Your task to perform on an android device: Open Maps and search for coffee Image 0: 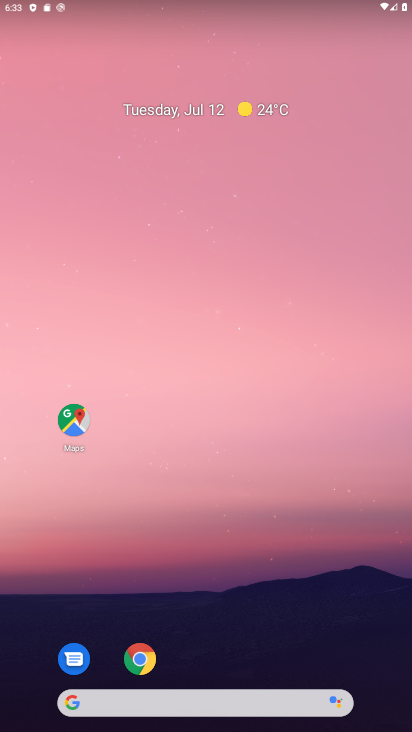
Step 0: drag from (382, 673) to (201, 4)
Your task to perform on an android device: Open Maps and search for coffee Image 1: 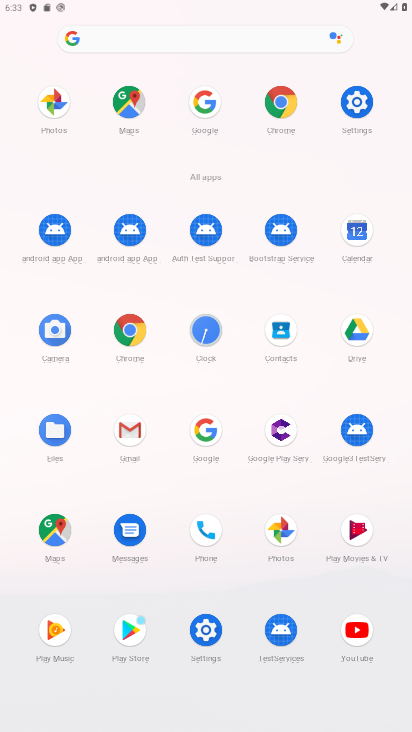
Step 1: click (53, 534)
Your task to perform on an android device: Open Maps and search for coffee Image 2: 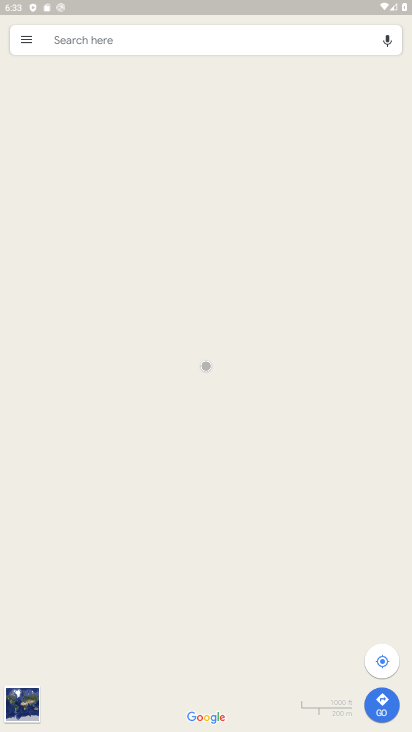
Step 2: click (81, 29)
Your task to perform on an android device: Open Maps and search for coffee Image 3: 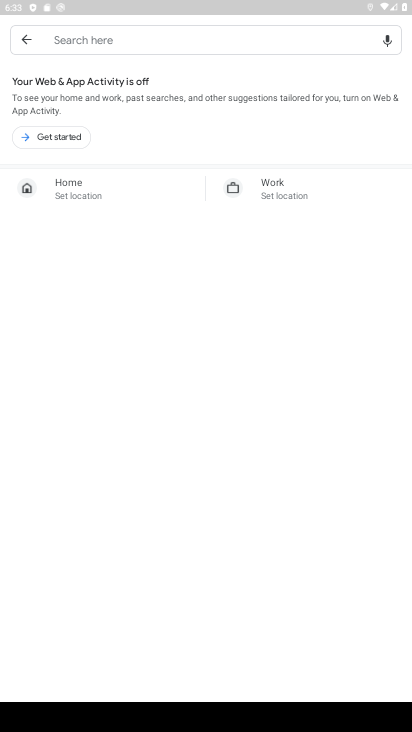
Step 3: click (65, 137)
Your task to perform on an android device: Open Maps and search for coffee Image 4: 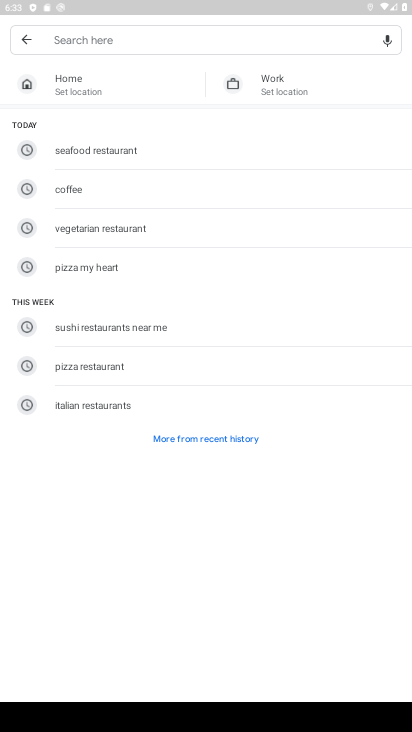
Step 4: click (78, 179)
Your task to perform on an android device: Open Maps and search for coffee Image 5: 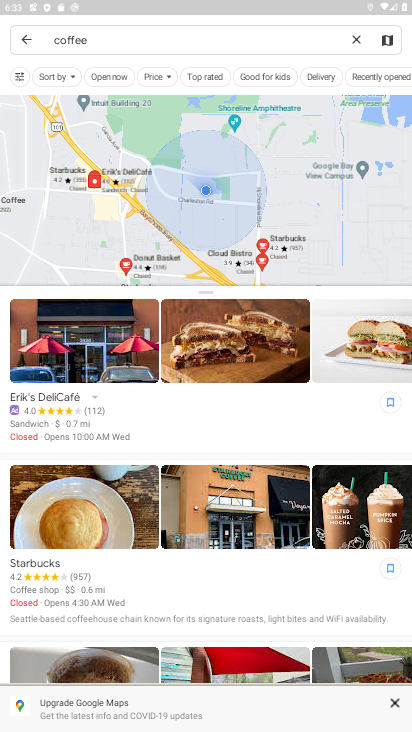
Step 5: task complete